Your task to perform on an android device: What's the weather? Image 0: 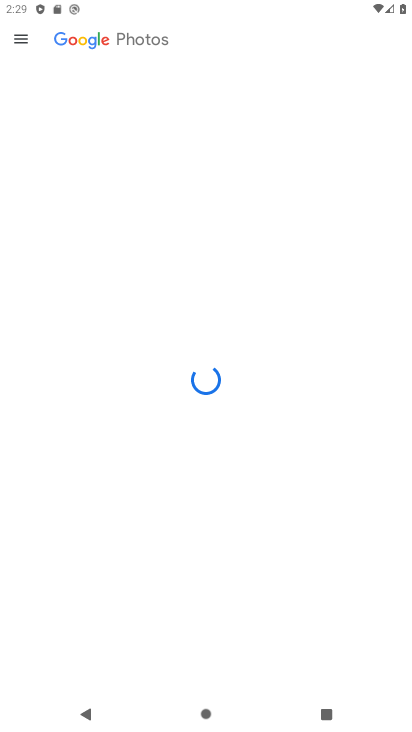
Step 0: press home button
Your task to perform on an android device: What's the weather? Image 1: 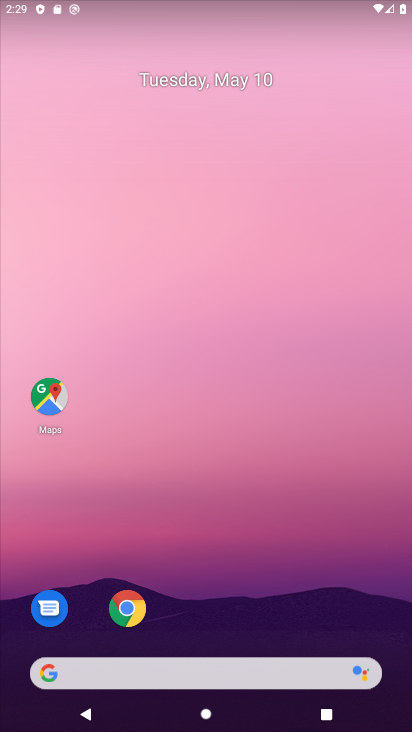
Step 1: click (186, 673)
Your task to perform on an android device: What's the weather? Image 2: 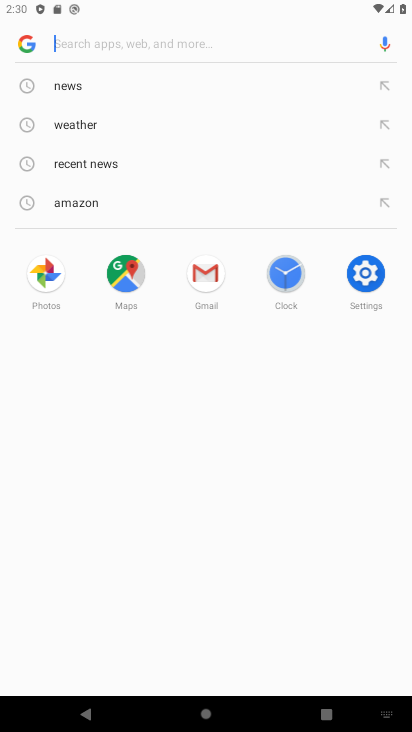
Step 2: click (88, 128)
Your task to perform on an android device: What's the weather? Image 3: 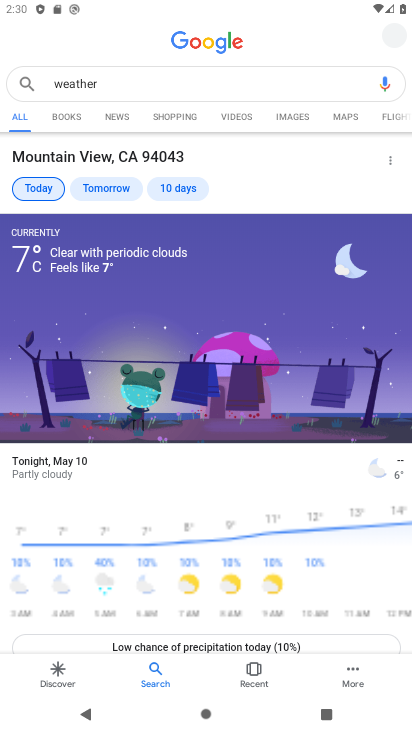
Step 3: task complete